Your task to perform on an android device: Show me recent news Image 0: 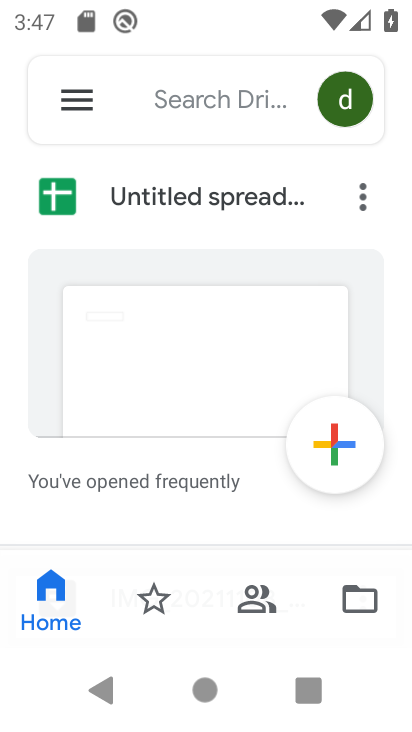
Step 0: press home button
Your task to perform on an android device: Show me recent news Image 1: 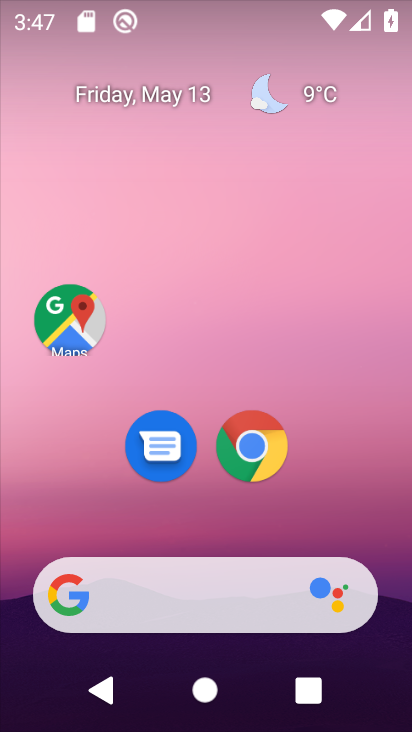
Step 1: click (193, 586)
Your task to perform on an android device: Show me recent news Image 2: 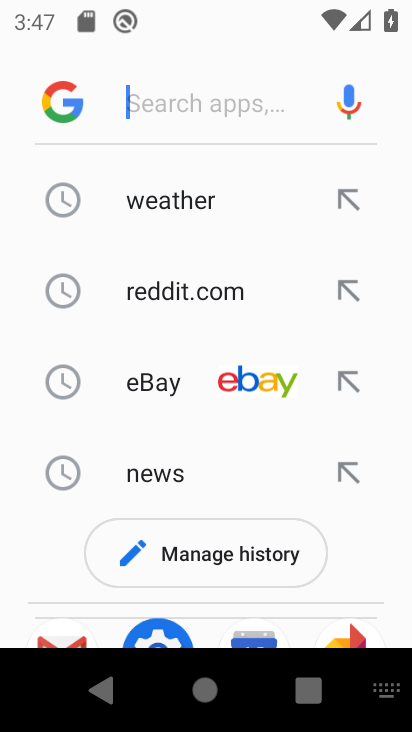
Step 2: type "recent news"
Your task to perform on an android device: Show me recent news Image 3: 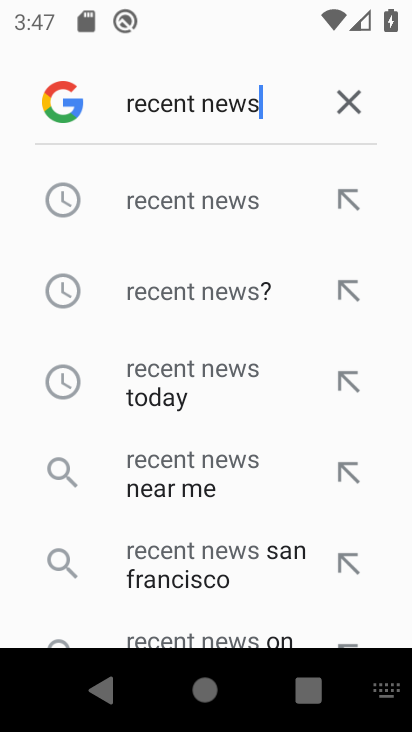
Step 3: click (209, 194)
Your task to perform on an android device: Show me recent news Image 4: 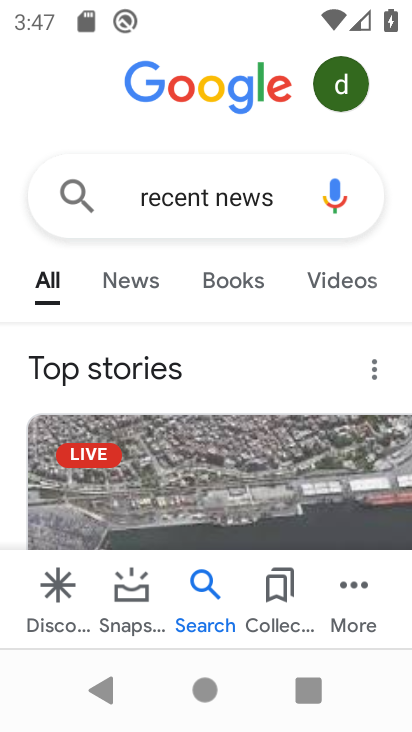
Step 4: click (138, 292)
Your task to perform on an android device: Show me recent news Image 5: 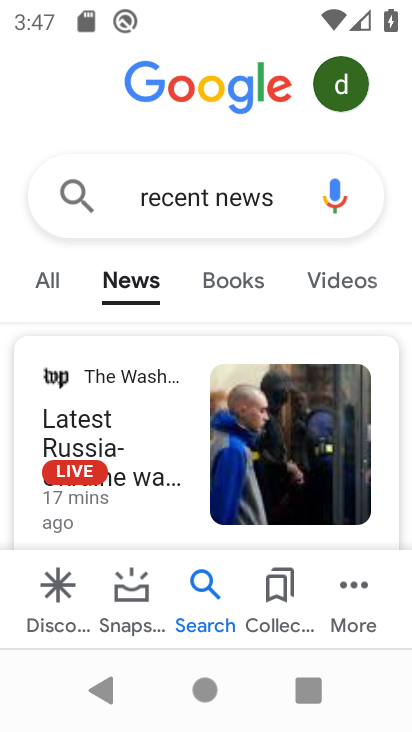
Step 5: task complete